Your task to perform on an android device: check google app version Image 0: 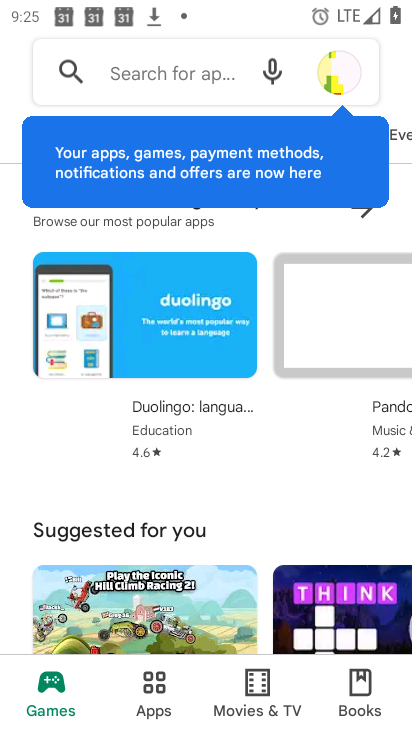
Step 0: press home button
Your task to perform on an android device: check google app version Image 1: 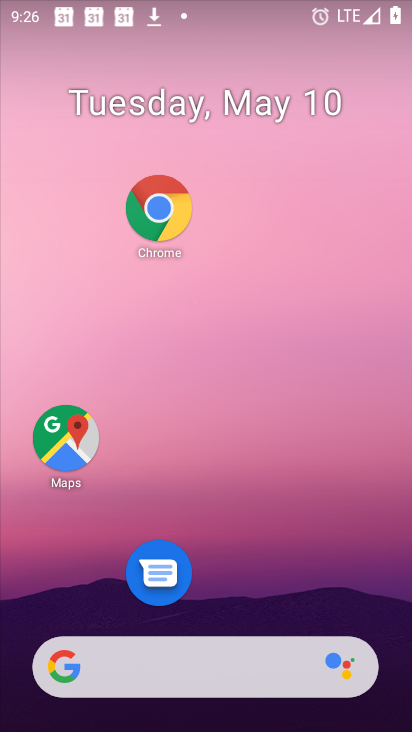
Step 1: drag from (307, 650) to (388, 147)
Your task to perform on an android device: check google app version Image 2: 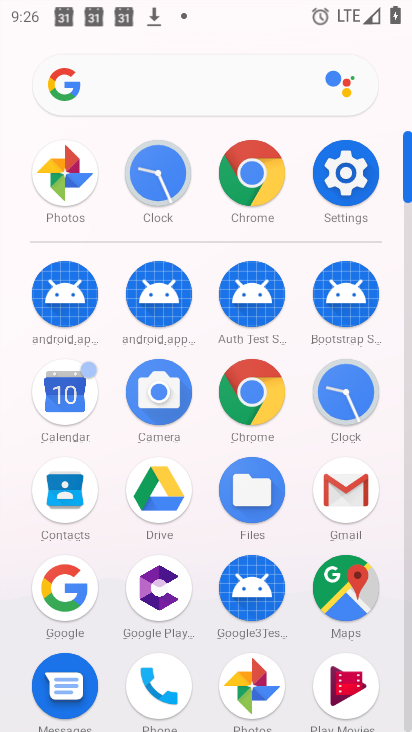
Step 2: click (252, 182)
Your task to perform on an android device: check google app version Image 3: 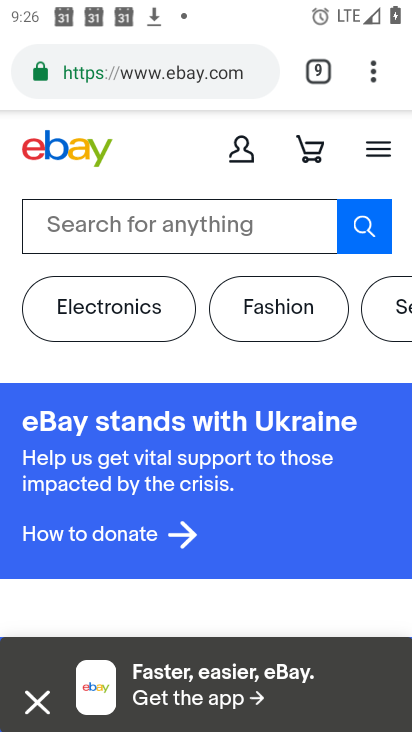
Step 3: click (369, 65)
Your task to perform on an android device: check google app version Image 4: 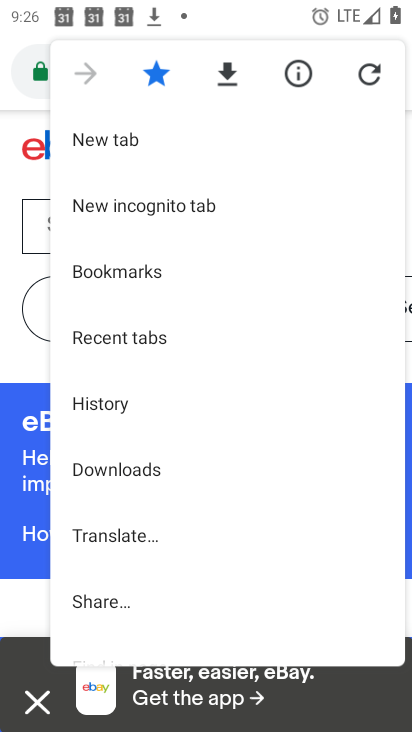
Step 4: drag from (166, 583) to (144, 342)
Your task to perform on an android device: check google app version Image 5: 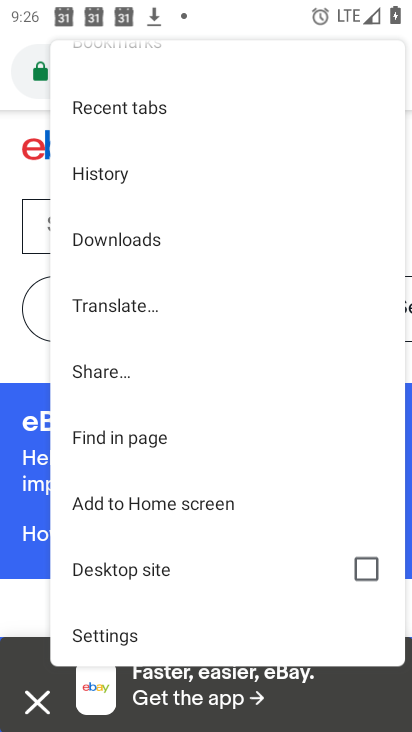
Step 5: click (142, 618)
Your task to perform on an android device: check google app version Image 6: 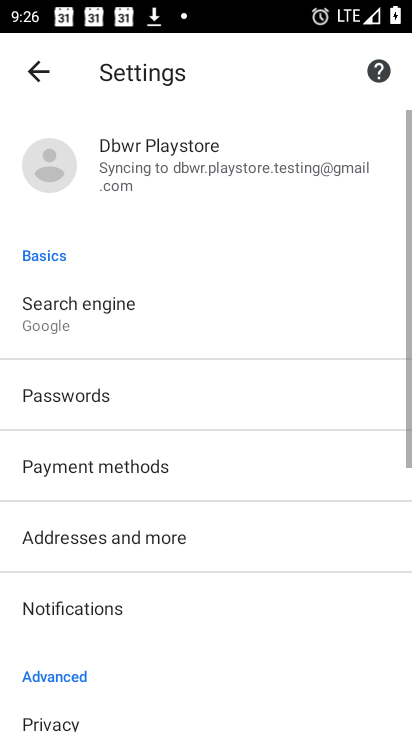
Step 6: drag from (188, 522) to (235, 214)
Your task to perform on an android device: check google app version Image 7: 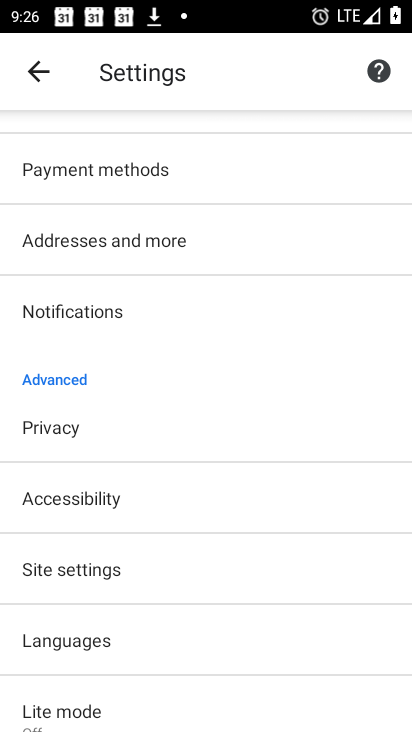
Step 7: drag from (176, 515) to (222, 239)
Your task to perform on an android device: check google app version Image 8: 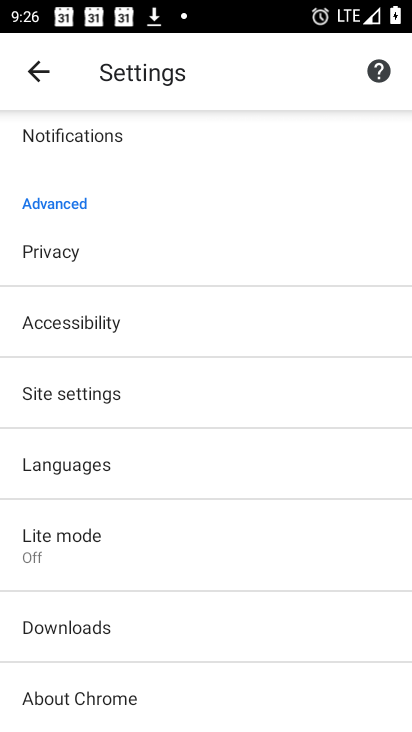
Step 8: click (117, 686)
Your task to perform on an android device: check google app version Image 9: 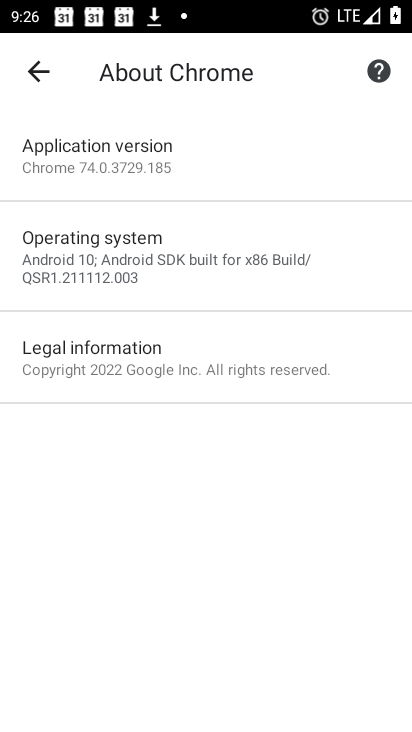
Step 9: click (119, 161)
Your task to perform on an android device: check google app version Image 10: 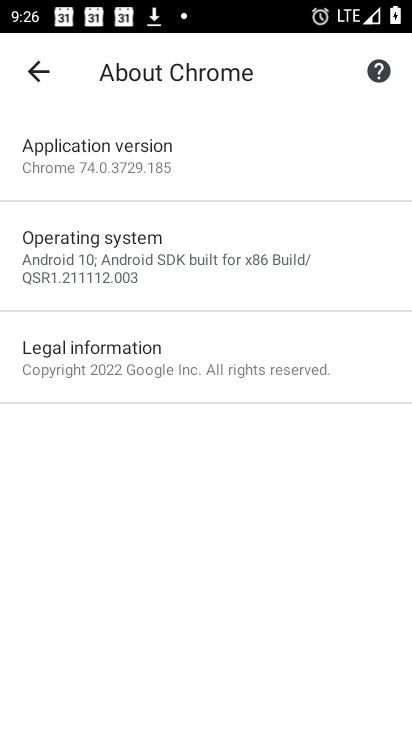
Step 10: task complete